Your task to perform on an android device: Go to wifi settings Image 0: 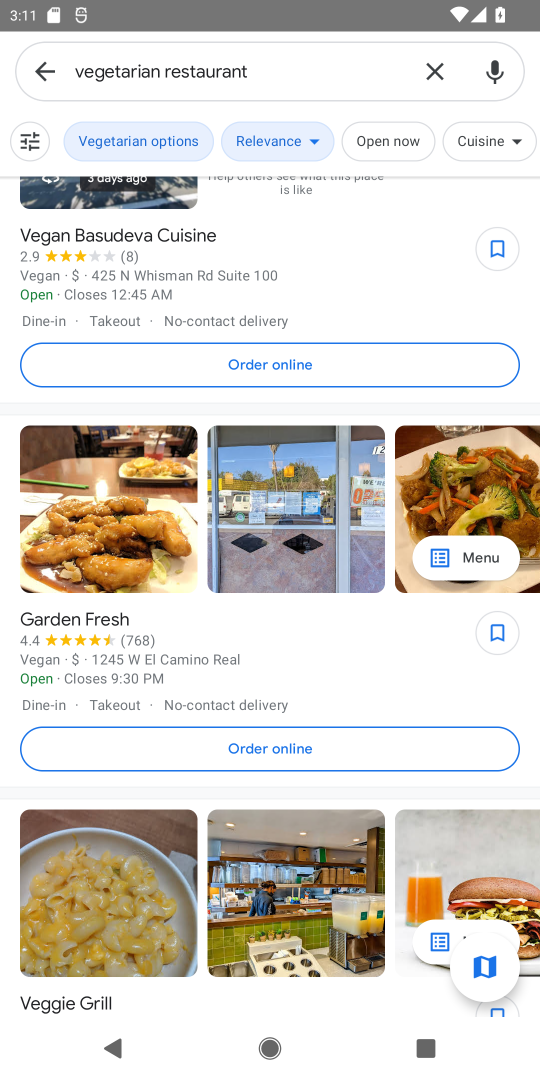
Step 0: press home button
Your task to perform on an android device: Go to wifi settings Image 1: 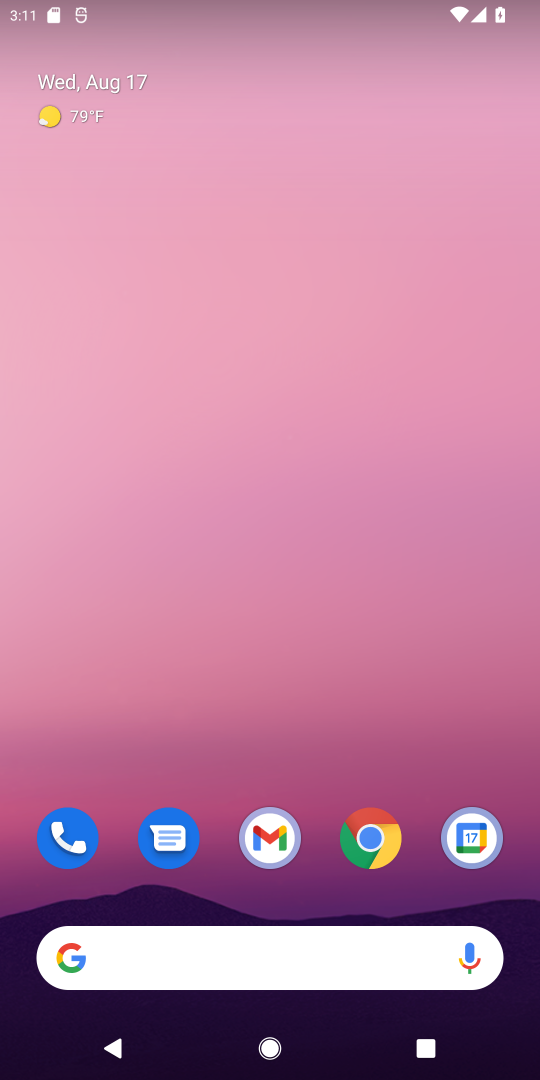
Step 1: drag from (251, 836) to (257, 323)
Your task to perform on an android device: Go to wifi settings Image 2: 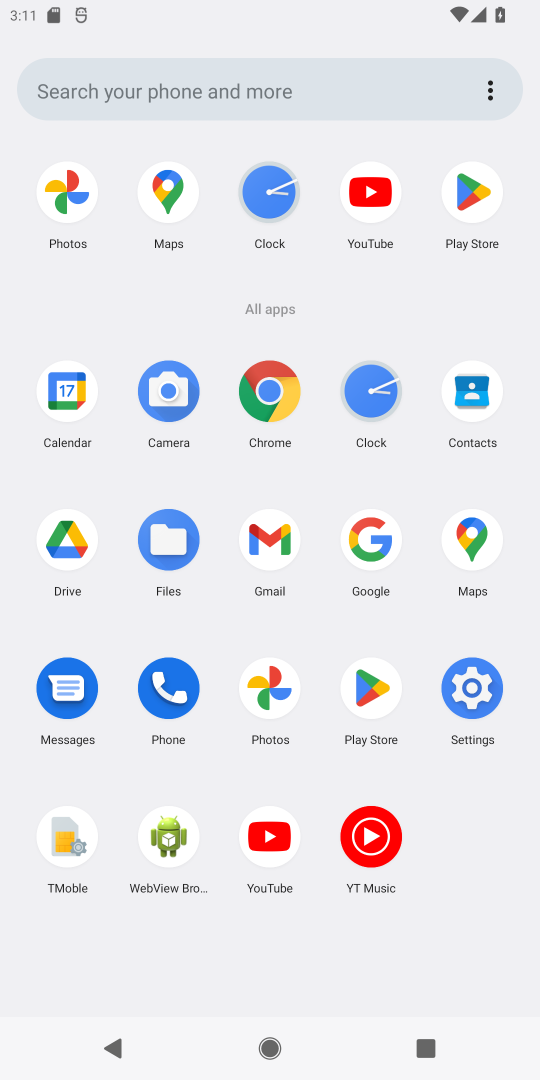
Step 2: click (463, 706)
Your task to perform on an android device: Go to wifi settings Image 3: 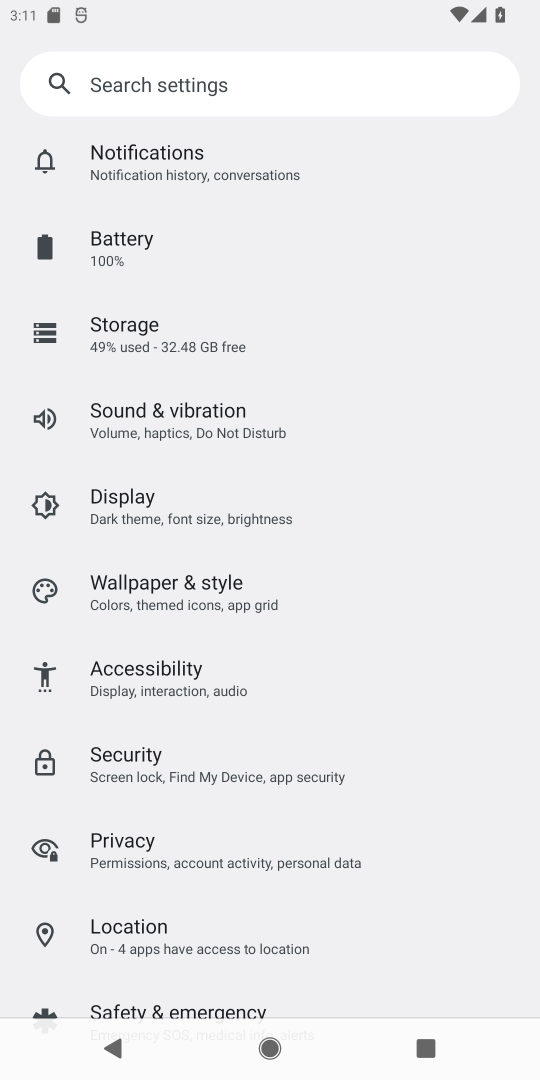
Step 3: drag from (176, 153) to (189, 776)
Your task to perform on an android device: Go to wifi settings Image 4: 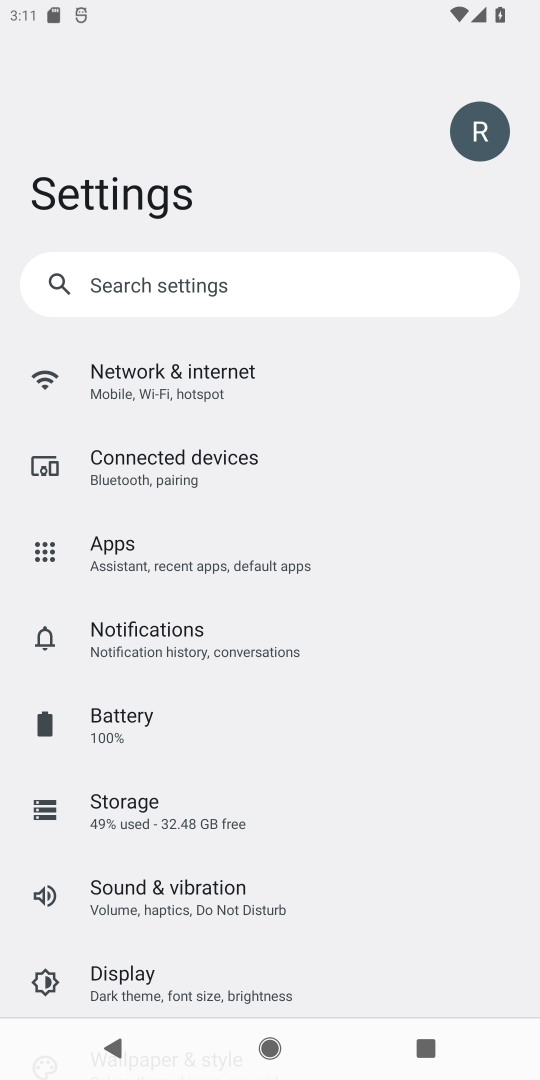
Step 4: click (109, 393)
Your task to perform on an android device: Go to wifi settings Image 5: 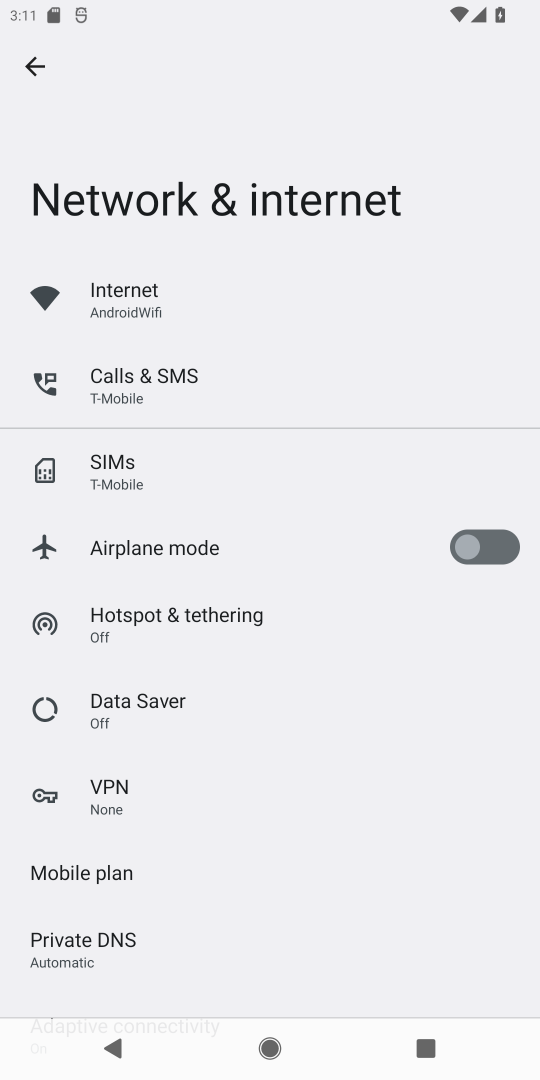
Step 5: click (117, 291)
Your task to perform on an android device: Go to wifi settings Image 6: 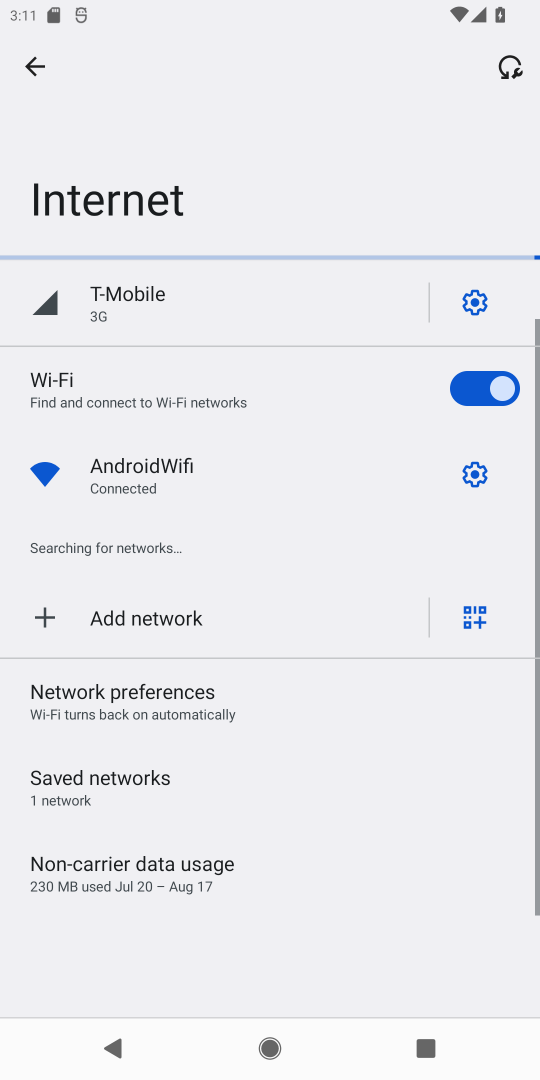
Step 6: click (472, 465)
Your task to perform on an android device: Go to wifi settings Image 7: 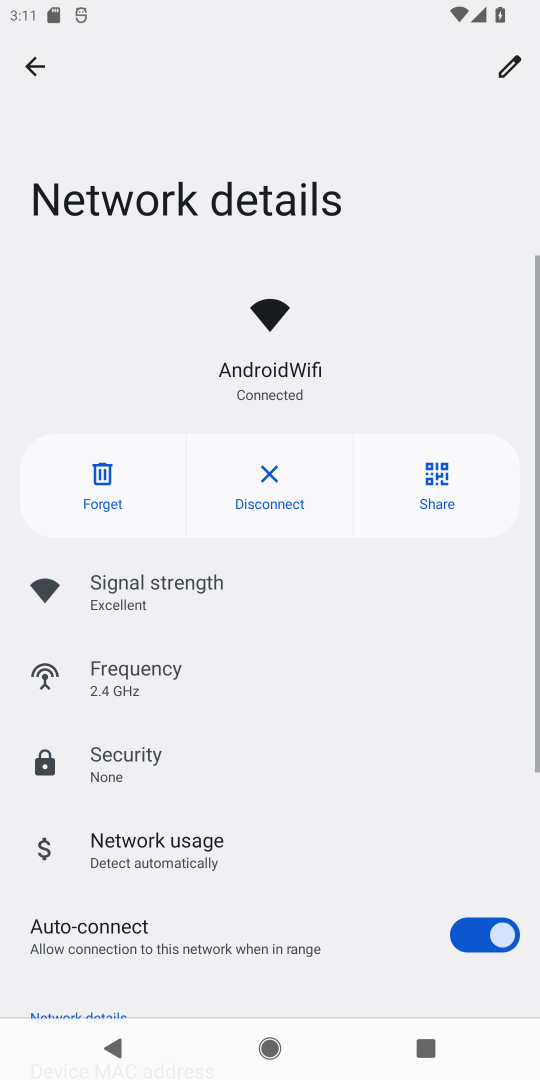
Step 7: task complete